Your task to perform on an android device: turn off improve location accuracy Image 0: 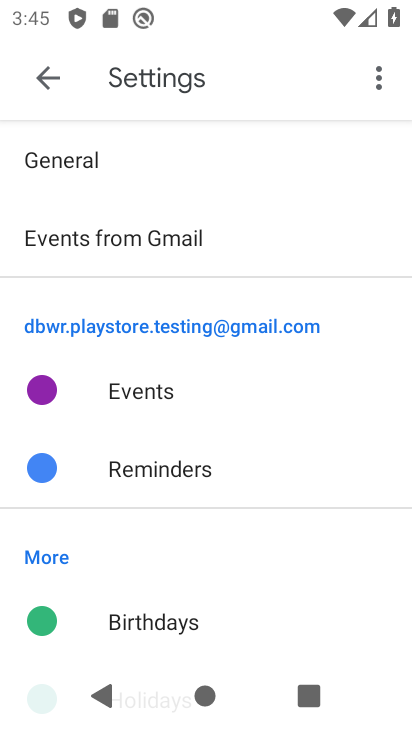
Step 0: press back button
Your task to perform on an android device: turn off improve location accuracy Image 1: 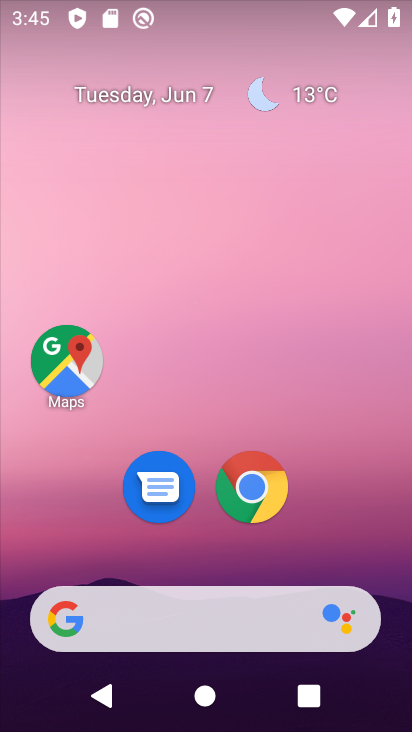
Step 1: drag from (201, 546) to (271, 4)
Your task to perform on an android device: turn off improve location accuracy Image 2: 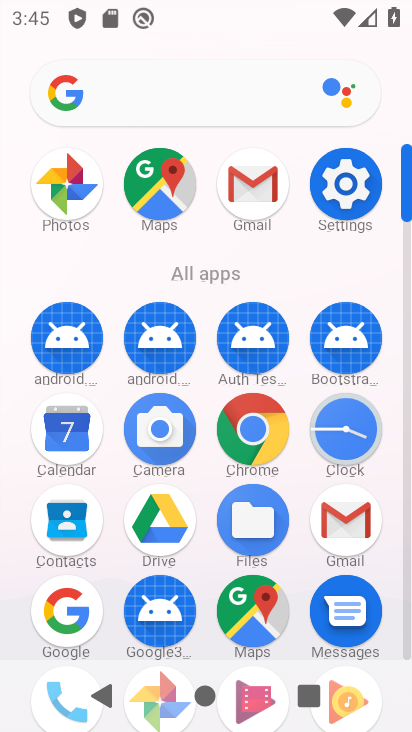
Step 2: click (345, 215)
Your task to perform on an android device: turn off improve location accuracy Image 3: 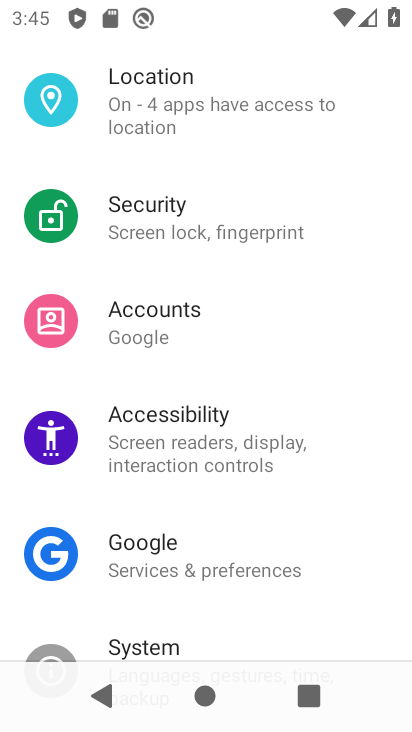
Step 3: click (158, 102)
Your task to perform on an android device: turn off improve location accuracy Image 4: 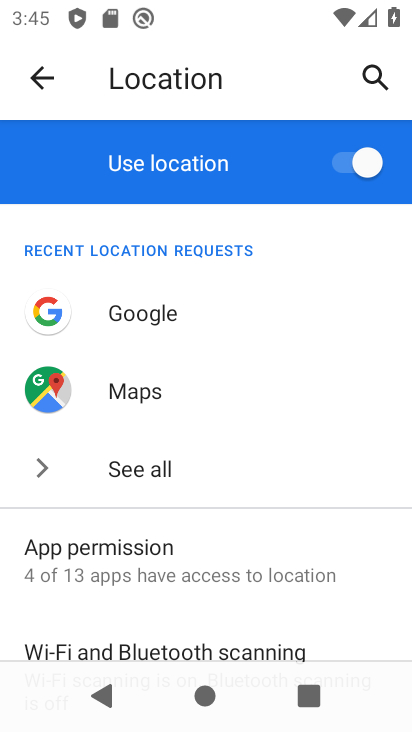
Step 4: drag from (174, 589) to (242, 57)
Your task to perform on an android device: turn off improve location accuracy Image 5: 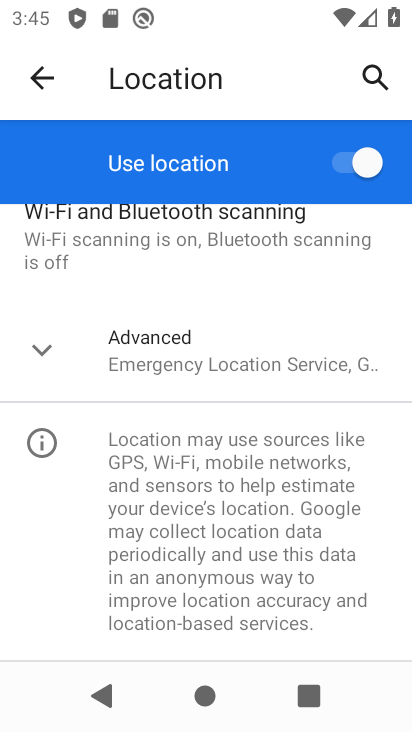
Step 5: click (164, 335)
Your task to perform on an android device: turn off improve location accuracy Image 6: 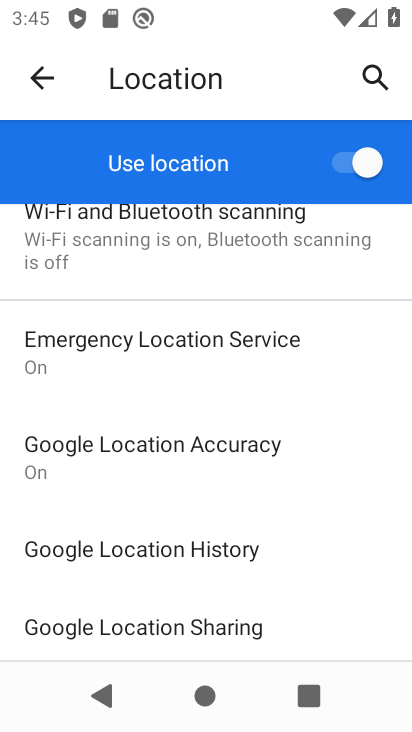
Step 6: click (182, 443)
Your task to perform on an android device: turn off improve location accuracy Image 7: 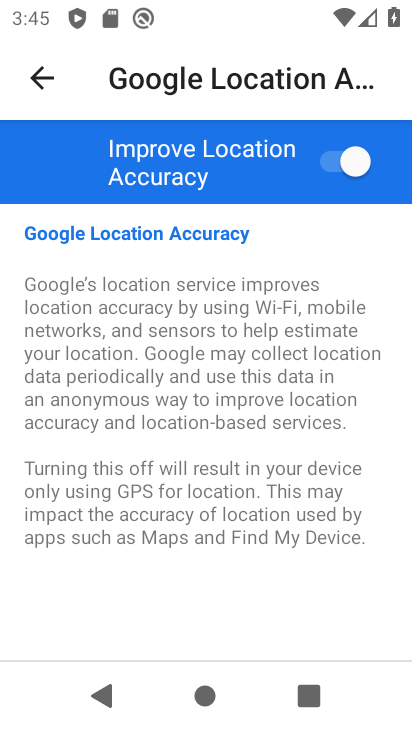
Step 7: click (354, 161)
Your task to perform on an android device: turn off improve location accuracy Image 8: 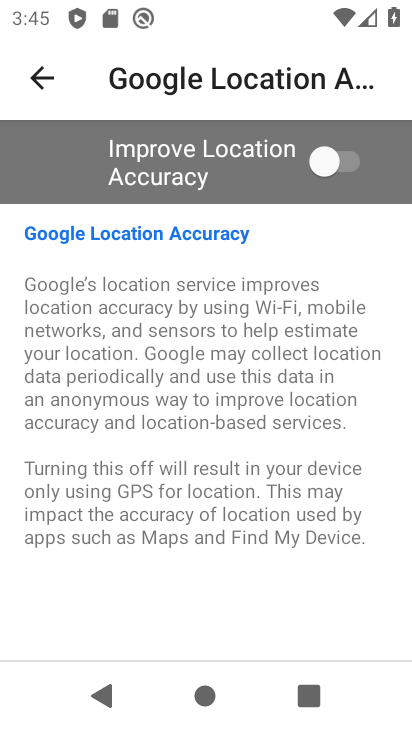
Step 8: task complete